Your task to perform on an android device: Go to Amazon Image 0: 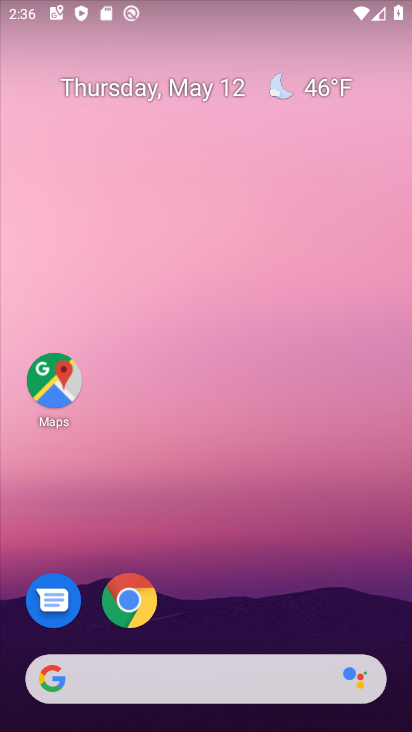
Step 0: drag from (217, 564) to (260, 183)
Your task to perform on an android device: Go to Amazon Image 1: 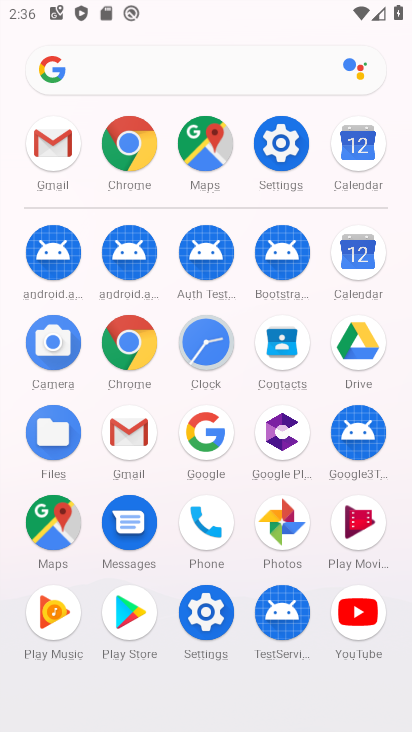
Step 1: click (133, 136)
Your task to perform on an android device: Go to Amazon Image 2: 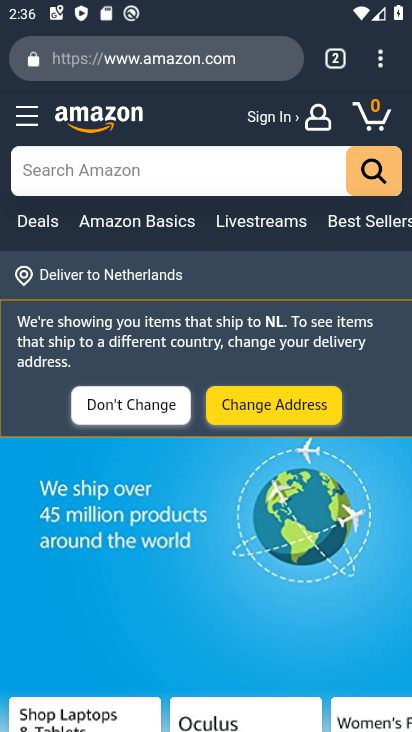
Step 2: task complete